Your task to perform on an android device: Open Chrome and go to settings Image 0: 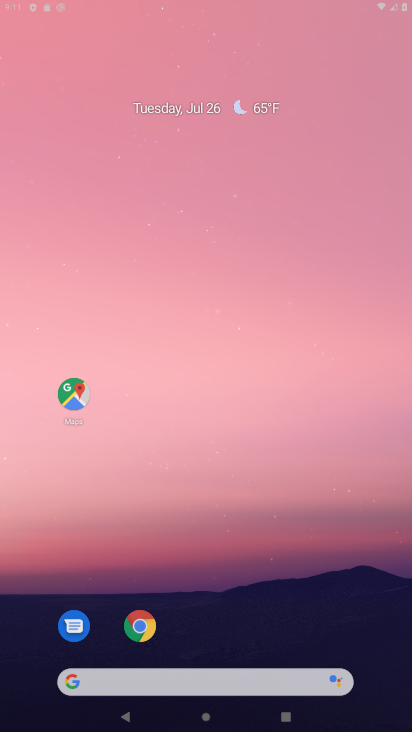
Step 0: drag from (282, 559) to (268, 93)
Your task to perform on an android device: Open Chrome and go to settings Image 1: 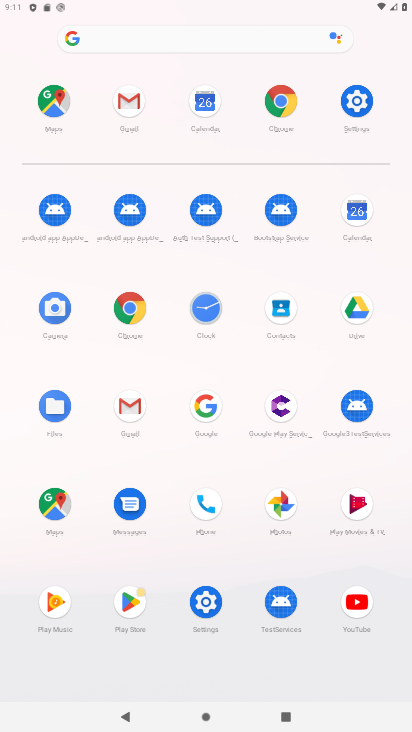
Step 1: click (121, 308)
Your task to perform on an android device: Open Chrome and go to settings Image 2: 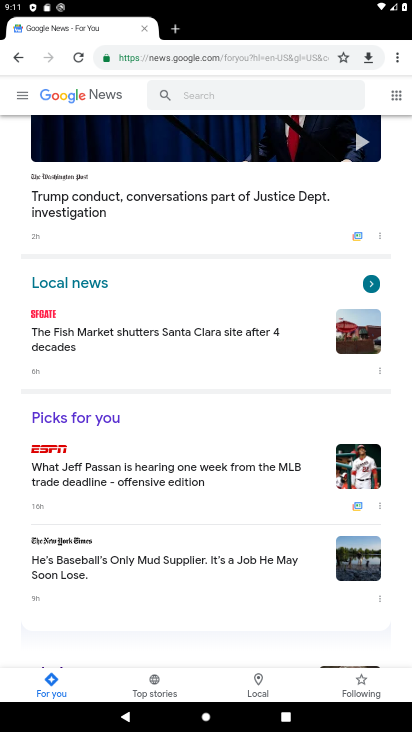
Step 2: click (405, 50)
Your task to perform on an android device: Open Chrome and go to settings Image 3: 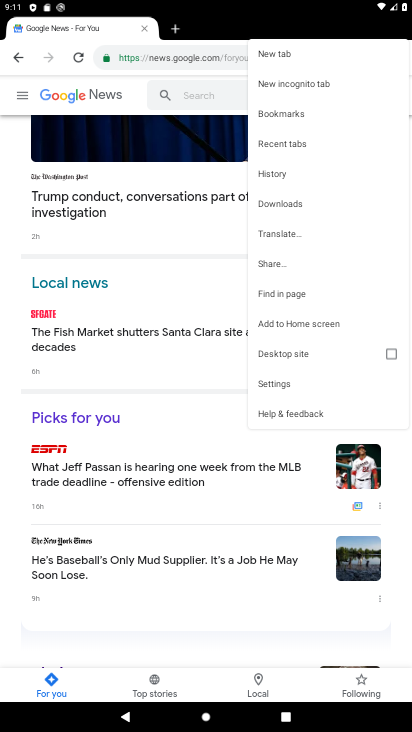
Step 3: click (289, 387)
Your task to perform on an android device: Open Chrome and go to settings Image 4: 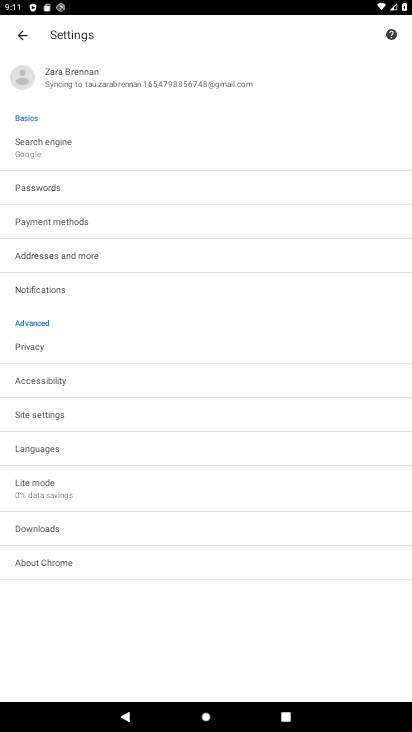
Step 4: task complete